Your task to perform on an android device: Open settings on Google Maps Image 0: 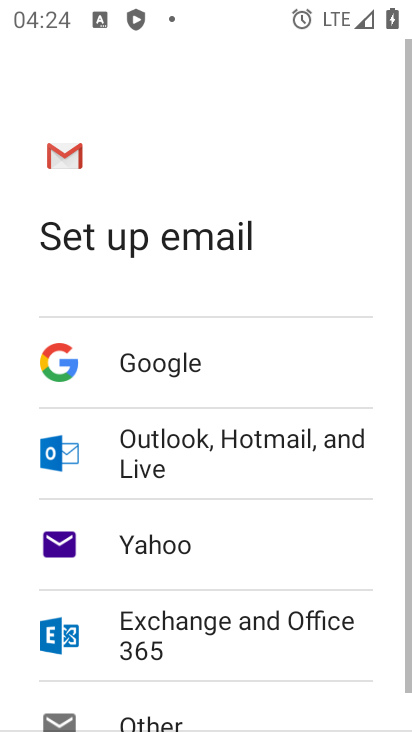
Step 0: press home button
Your task to perform on an android device: Open settings on Google Maps Image 1: 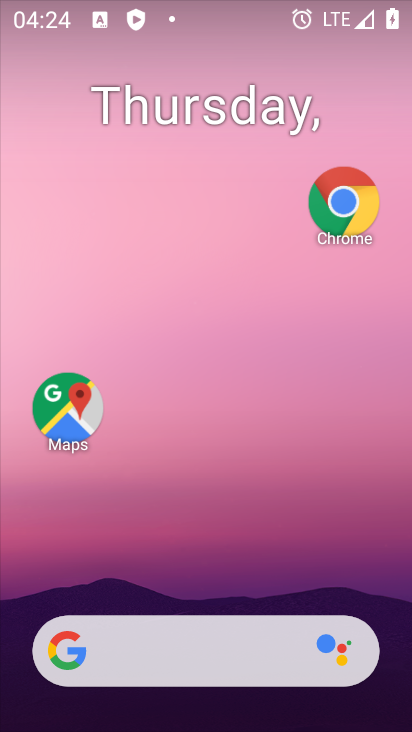
Step 1: drag from (244, 628) to (296, 41)
Your task to perform on an android device: Open settings on Google Maps Image 2: 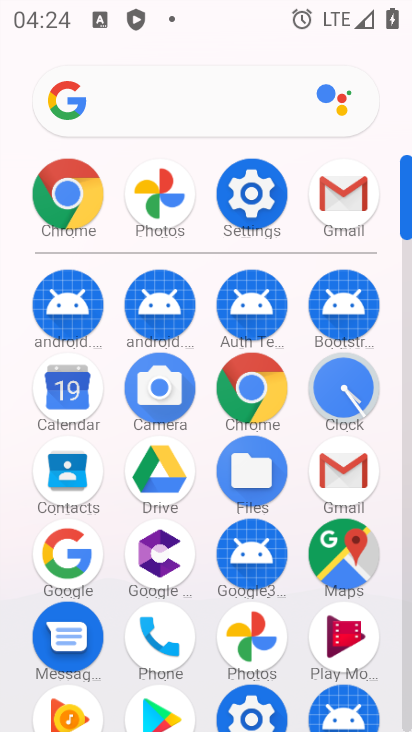
Step 2: click (341, 540)
Your task to perform on an android device: Open settings on Google Maps Image 3: 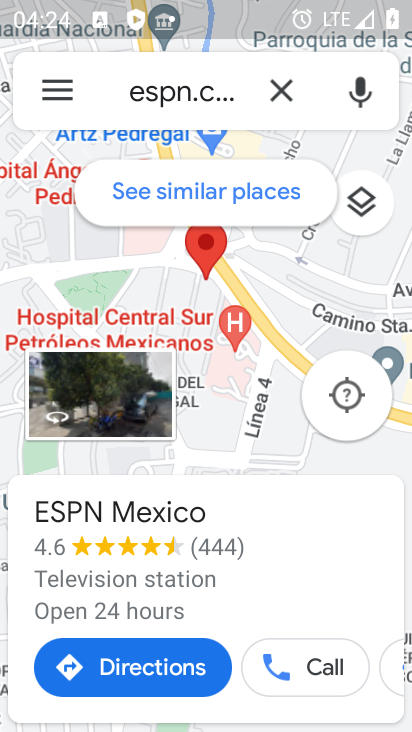
Step 3: click (65, 87)
Your task to perform on an android device: Open settings on Google Maps Image 4: 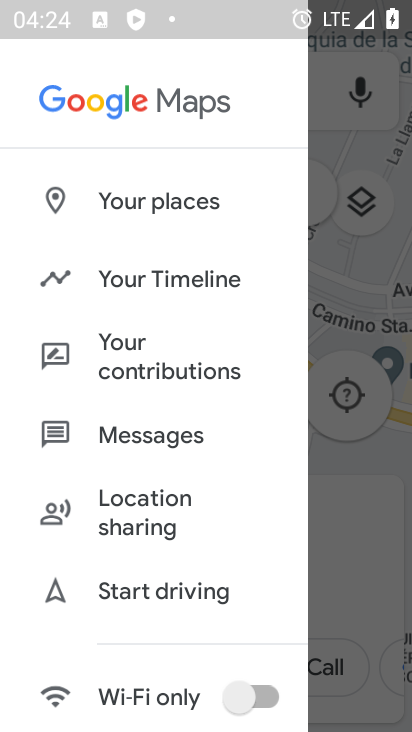
Step 4: click (204, 304)
Your task to perform on an android device: Open settings on Google Maps Image 5: 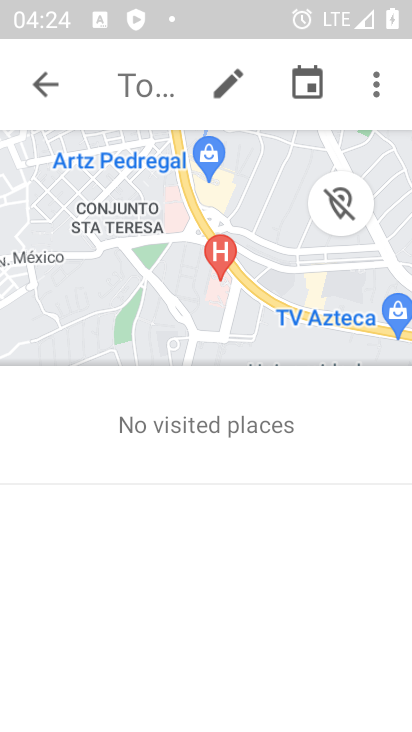
Step 5: click (373, 84)
Your task to perform on an android device: Open settings on Google Maps Image 6: 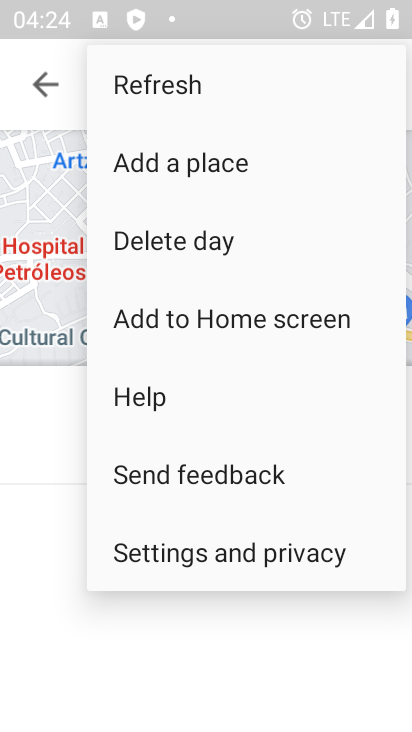
Step 6: click (256, 564)
Your task to perform on an android device: Open settings on Google Maps Image 7: 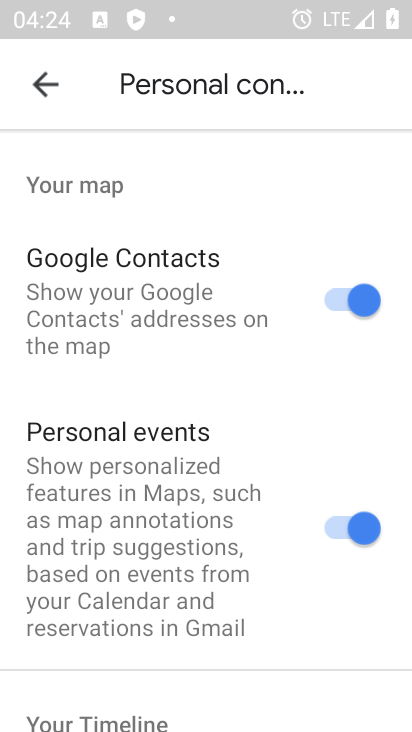
Step 7: task complete